Your task to perform on an android device: Open wifi settings Image 0: 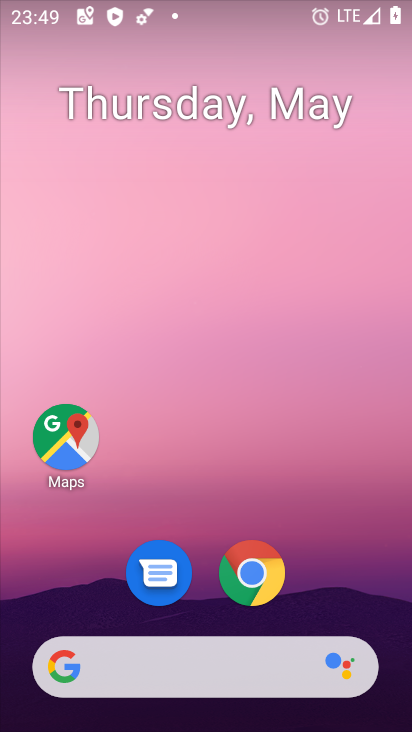
Step 0: drag from (194, 603) to (200, 206)
Your task to perform on an android device: Open wifi settings Image 1: 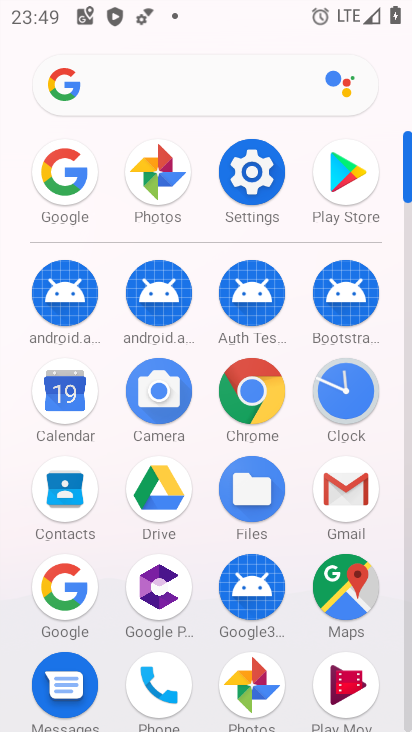
Step 1: click (242, 168)
Your task to perform on an android device: Open wifi settings Image 2: 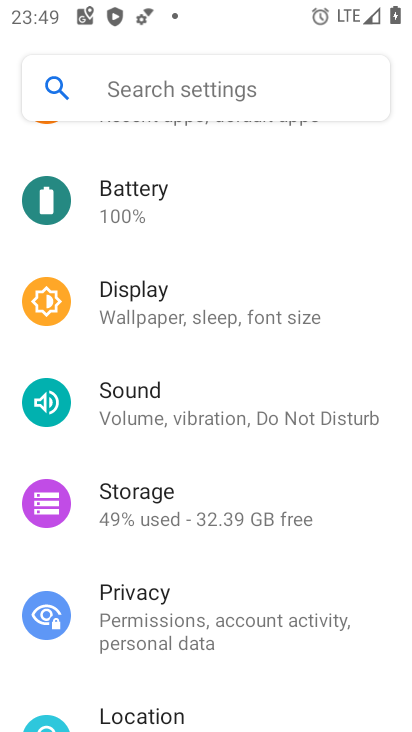
Step 2: drag from (193, 201) to (196, 458)
Your task to perform on an android device: Open wifi settings Image 3: 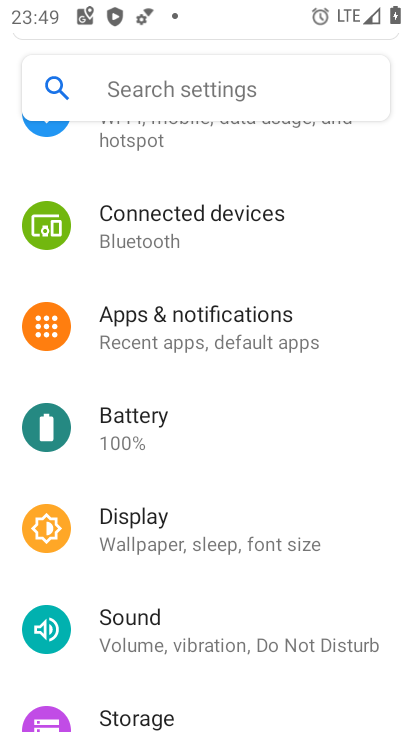
Step 3: drag from (170, 198) to (170, 502)
Your task to perform on an android device: Open wifi settings Image 4: 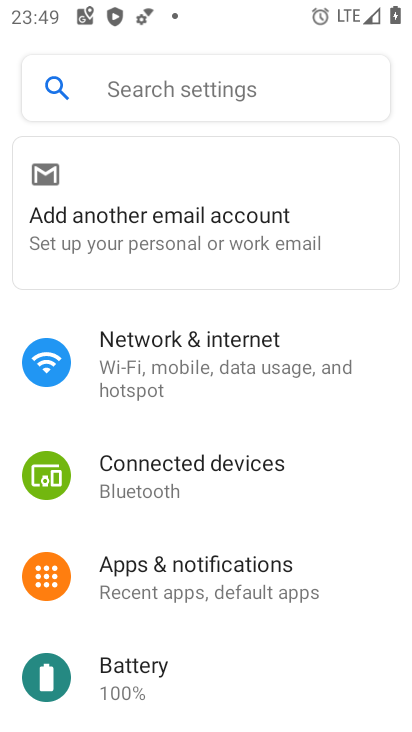
Step 4: click (163, 326)
Your task to perform on an android device: Open wifi settings Image 5: 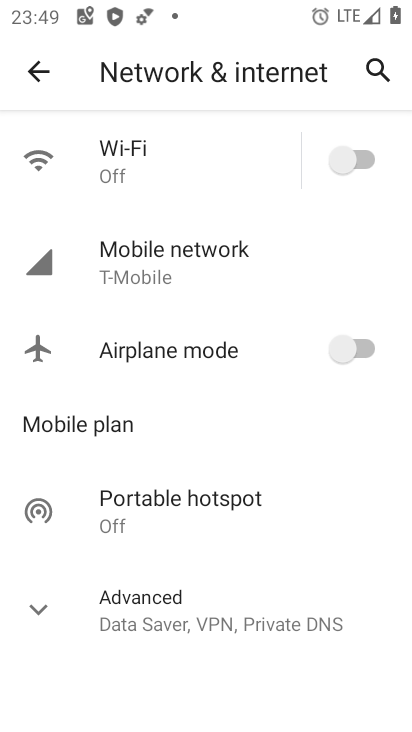
Step 5: click (198, 169)
Your task to perform on an android device: Open wifi settings Image 6: 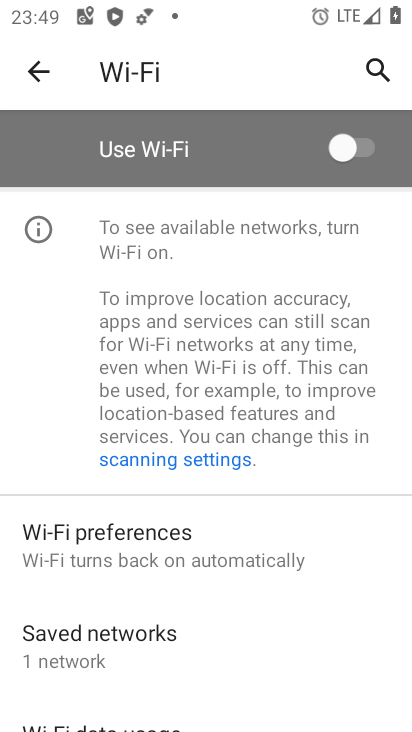
Step 6: task complete